Your task to perform on an android device: visit the assistant section in the google photos Image 0: 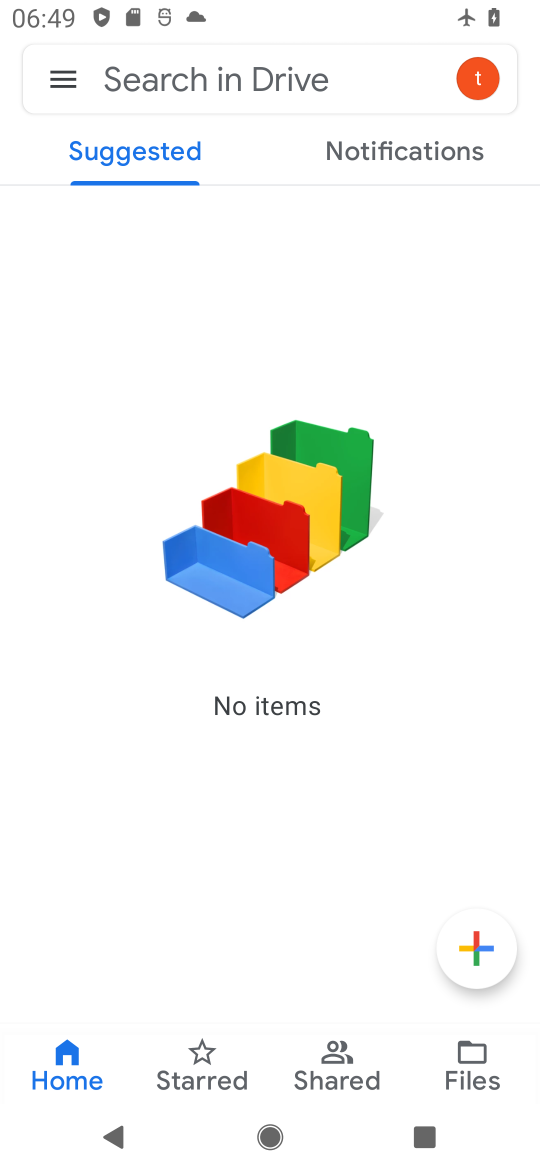
Step 0: press home button
Your task to perform on an android device: visit the assistant section in the google photos Image 1: 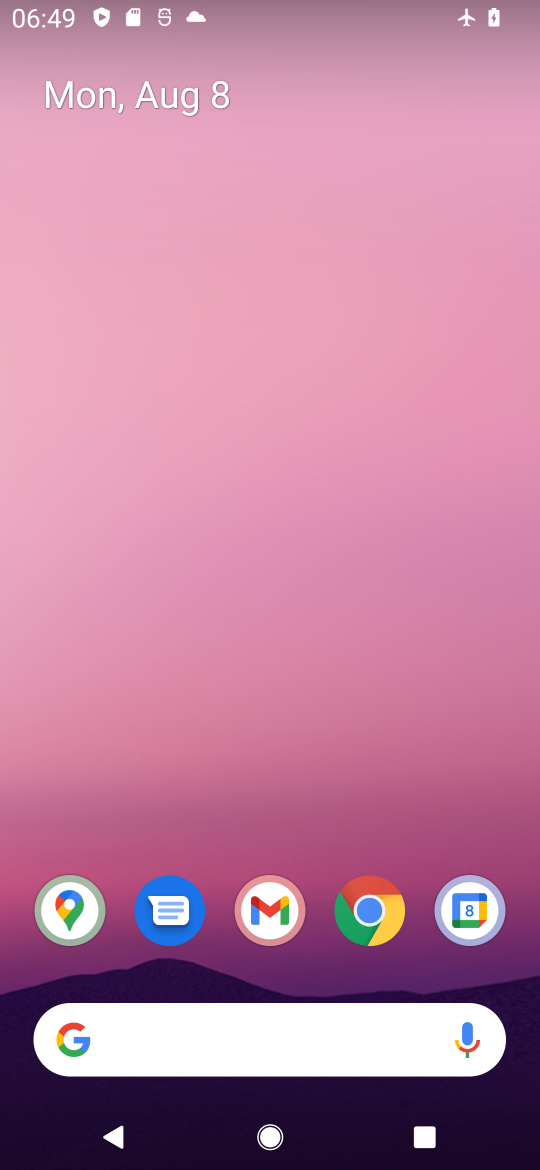
Step 1: drag from (231, 1063) to (324, 347)
Your task to perform on an android device: visit the assistant section in the google photos Image 2: 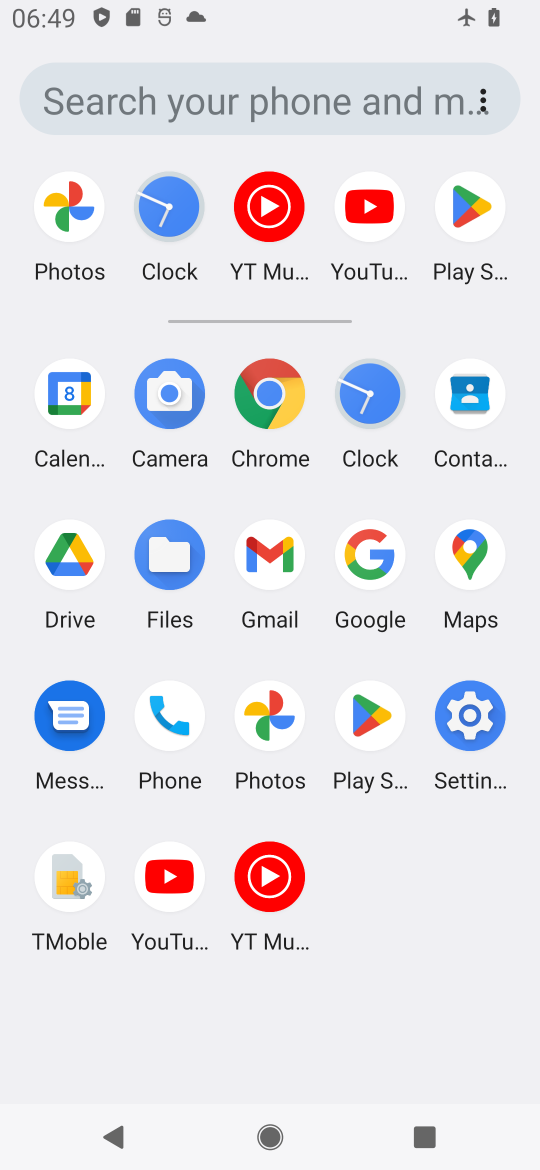
Step 2: click (67, 203)
Your task to perform on an android device: visit the assistant section in the google photos Image 3: 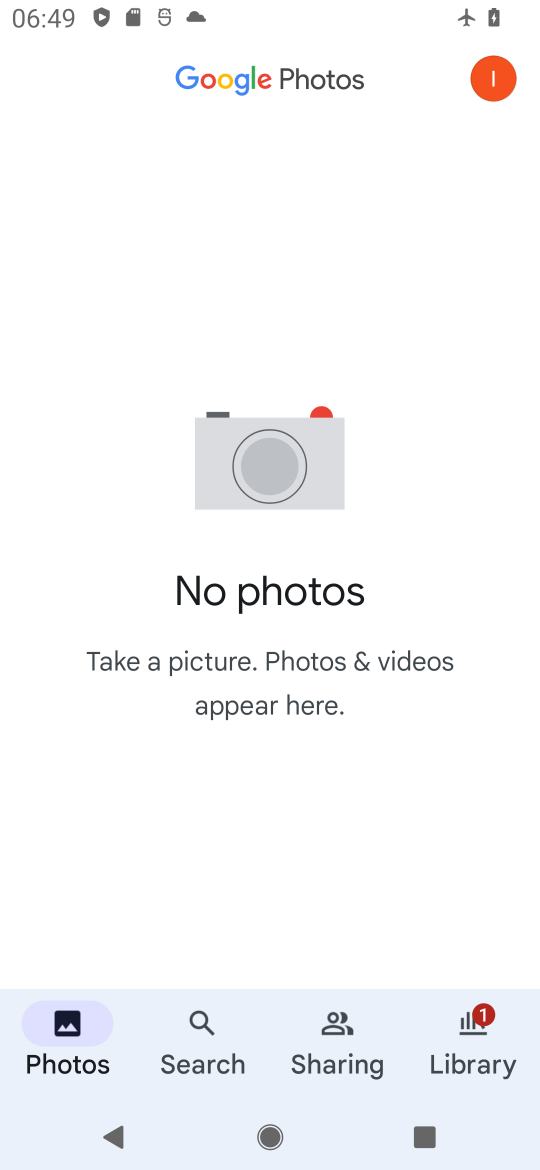
Step 3: click (489, 86)
Your task to perform on an android device: visit the assistant section in the google photos Image 4: 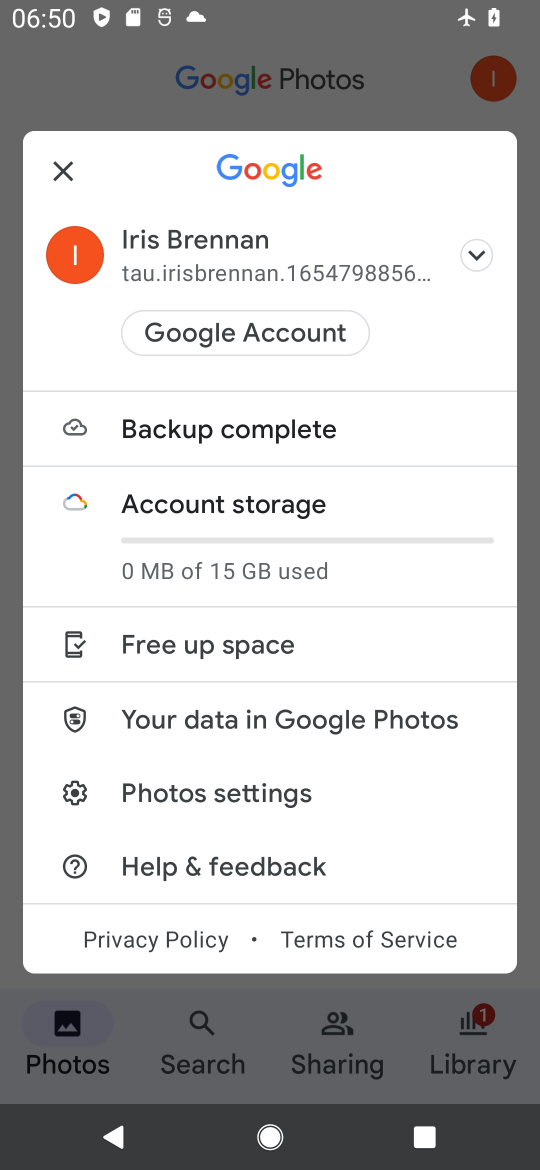
Step 4: click (204, 805)
Your task to perform on an android device: visit the assistant section in the google photos Image 5: 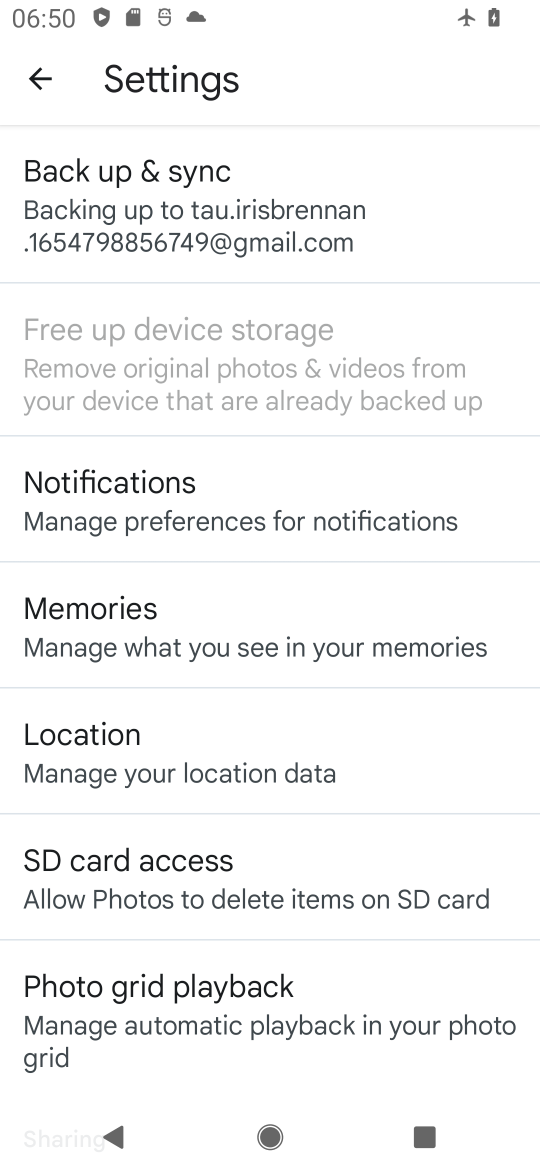
Step 5: drag from (183, 630) to (250, 519)
Your task to perform on an android device: visit the assistant section in the google photos Image 6: 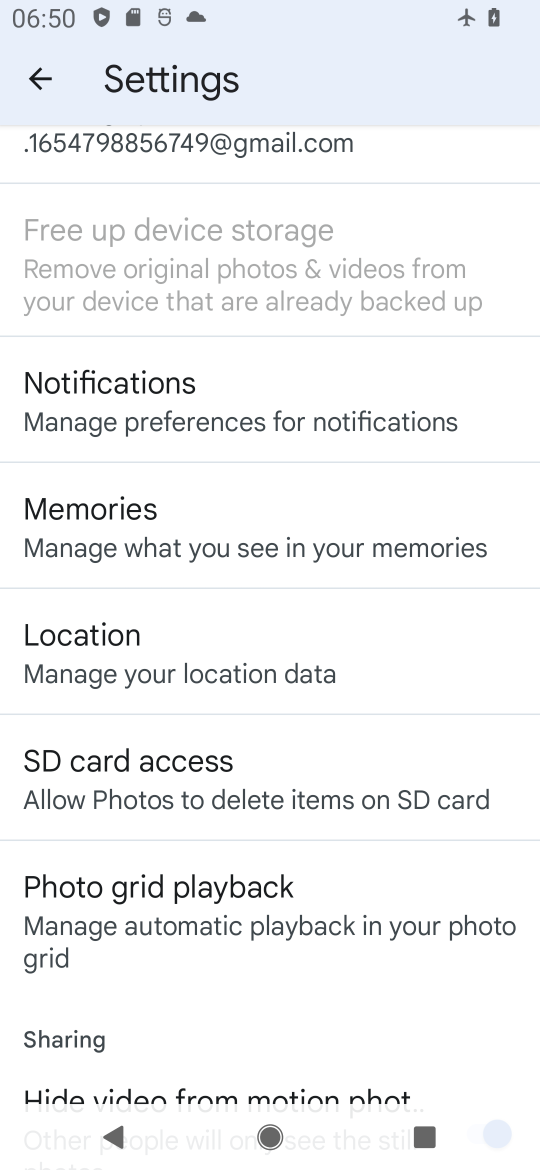
Step 6: drag from (286, 709) to (378, 585)
Your task to perform on an android device: visit the assistant section in the google photos Image 7: 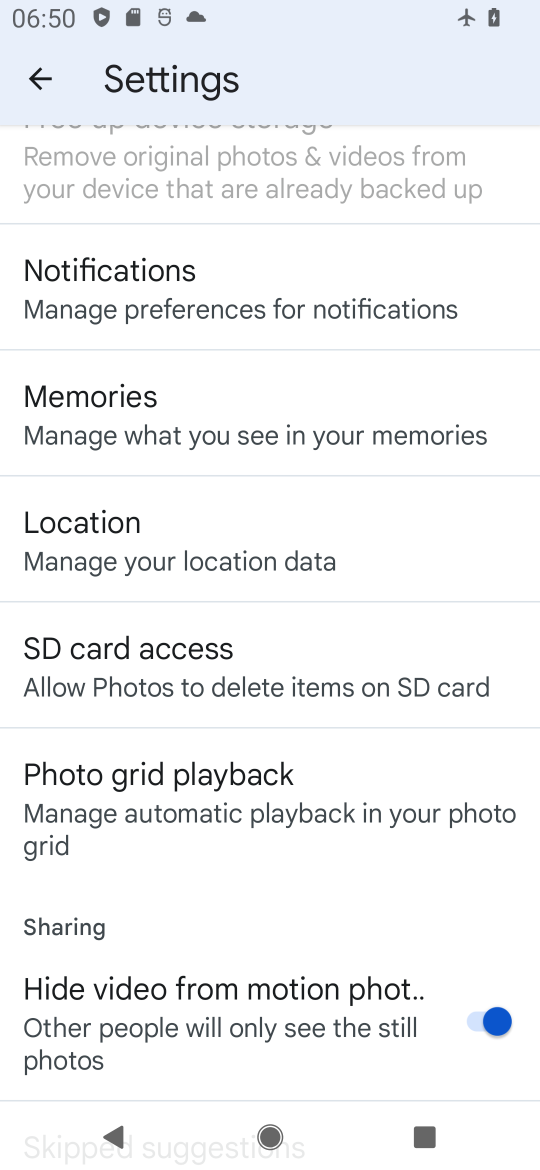
Step 7: drag from (210, 799) to (308, 653)
Your task to perform on an android device: visit the assistant section in the google photos Image 8: 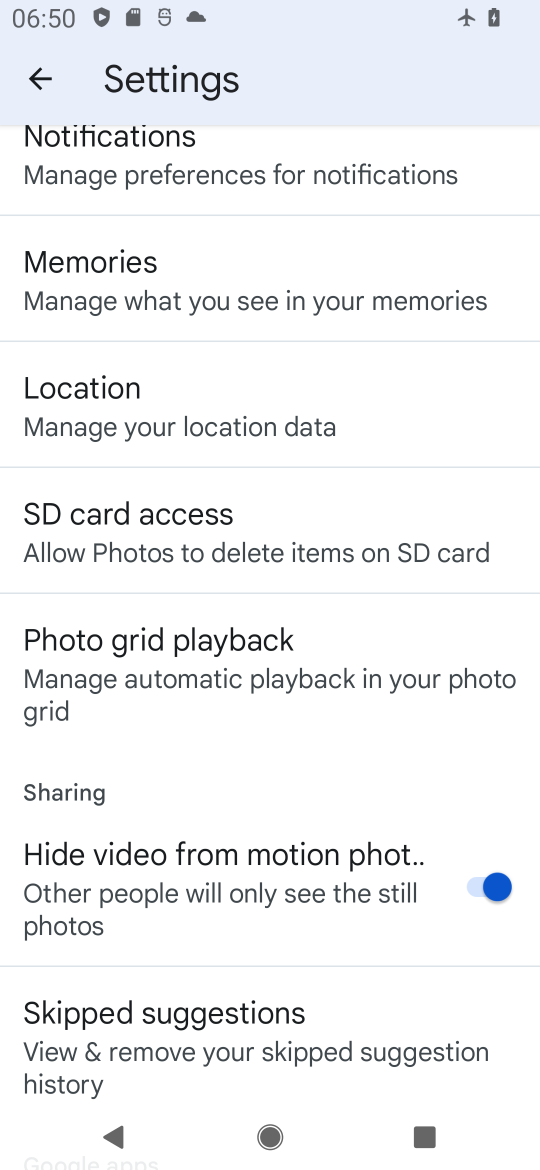
Step 8: drag from (131, 831) to (279, 658)
Your task to perform on an android device: visit the assistant section in the google photos Image 9: 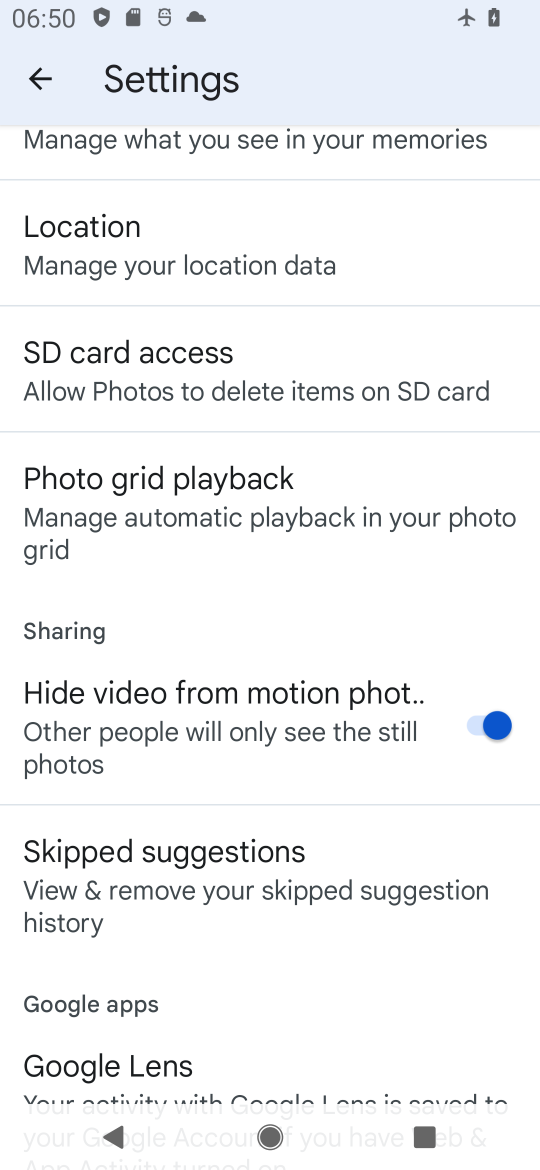
Step 9: drag from (239, 980) to (310, 801)
Your task to perform on an android device: visit the assistant section in the google photos Image 10: 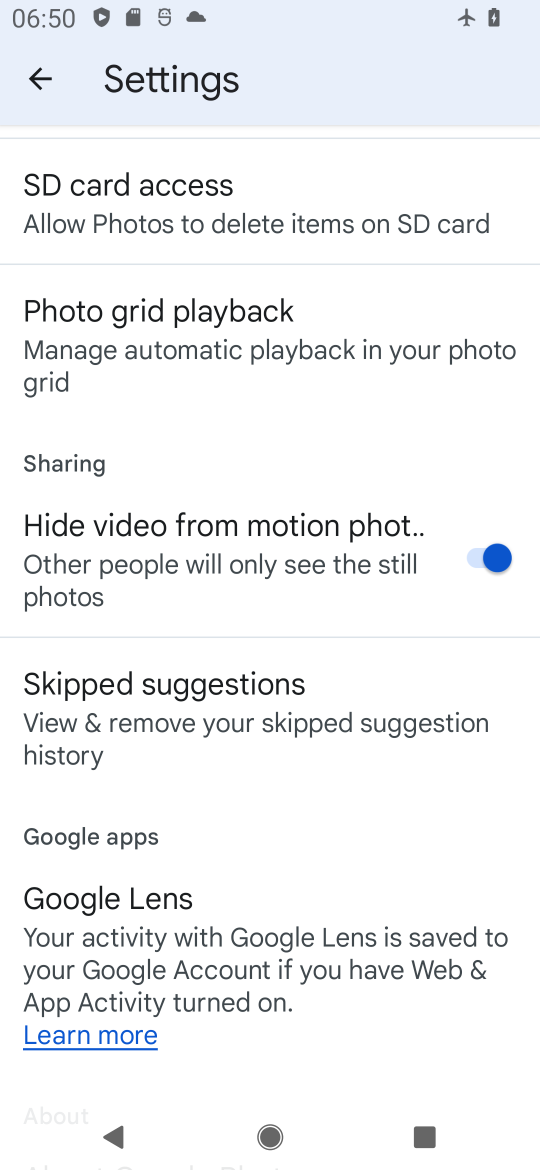
Step 10: drag from (203, 897) to (290, 759)
Your task to perform on an android device: visit the assistant section in the google photos Image 11: 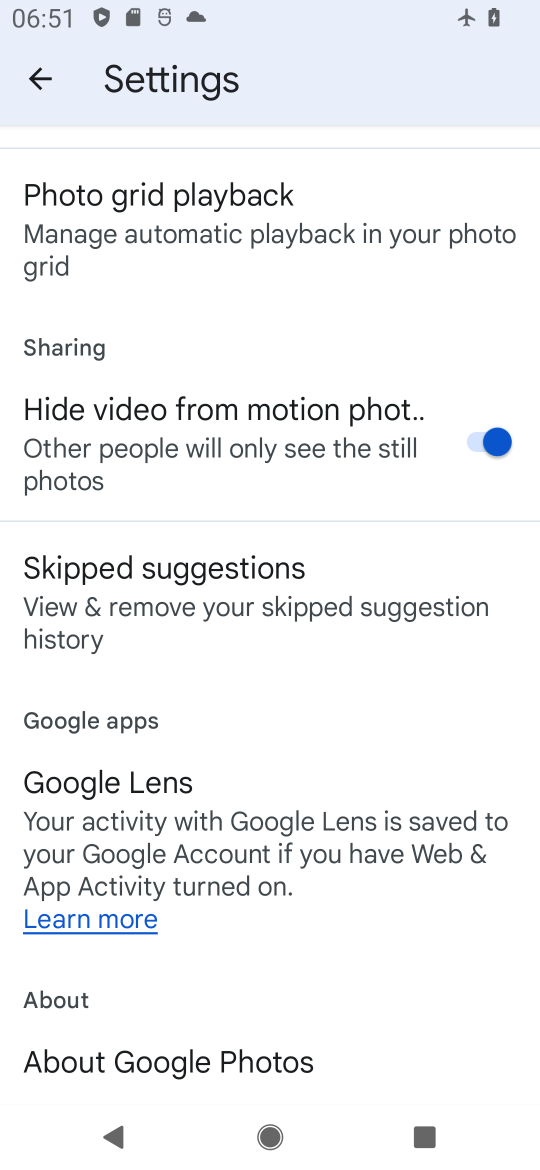
Step 11: press back button
Your task to perform on an android device: visit the assistant section in the google photos Image 12: 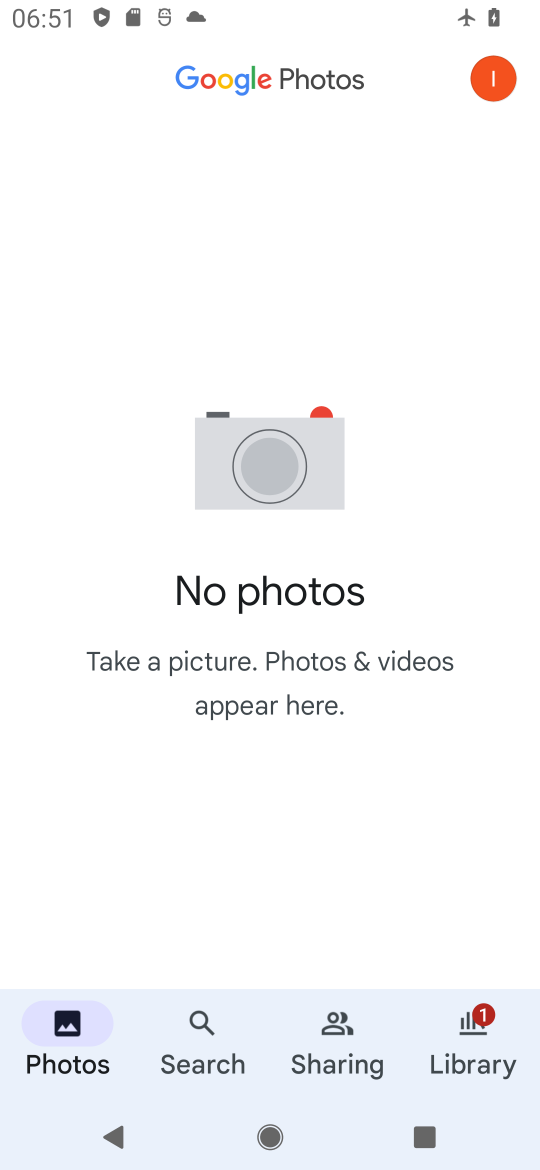
Step 12: click (205, 1021)
Your task to perform on an android device: visit the assistant section in the google photos Image 13: 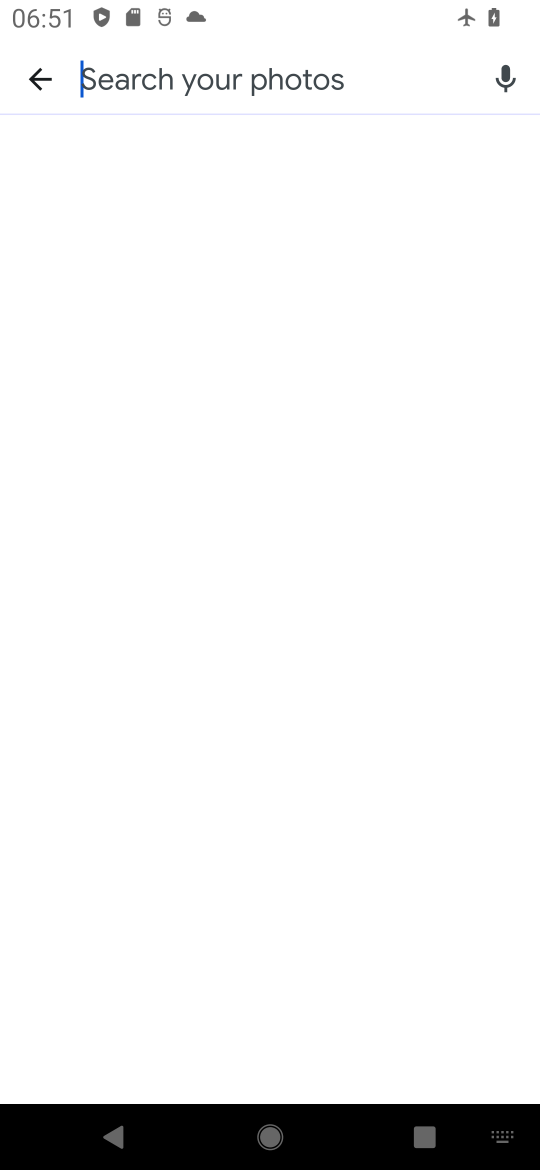
Step 13: click (63, 88)
Your task to perform on an android device: visit the assistant section in the google photos Image 14: 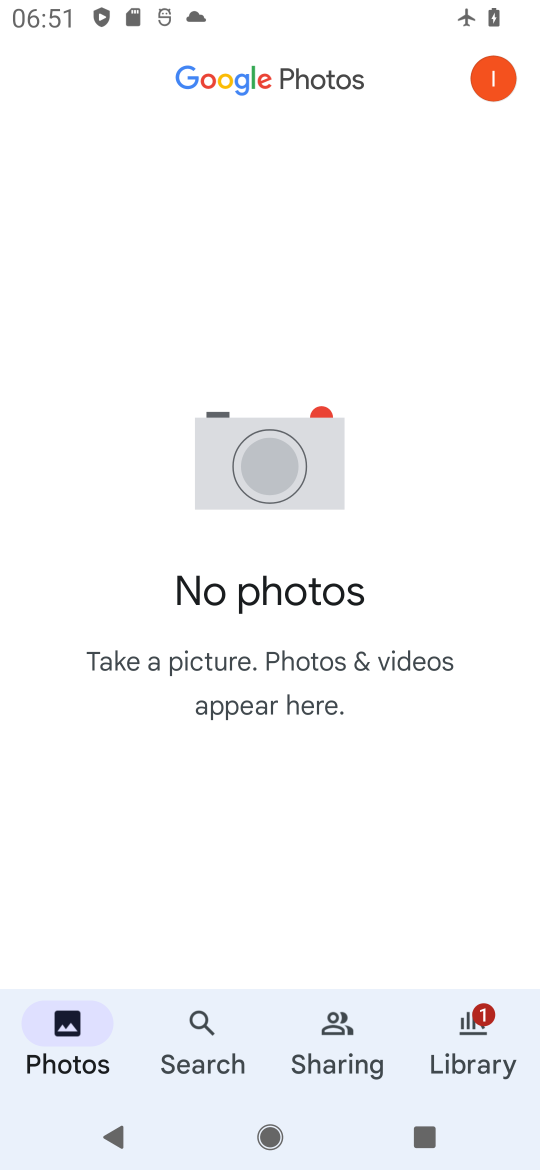
Step 14: task complete